Your task to perform on an android device: turn on bluetooth scan Image 0: 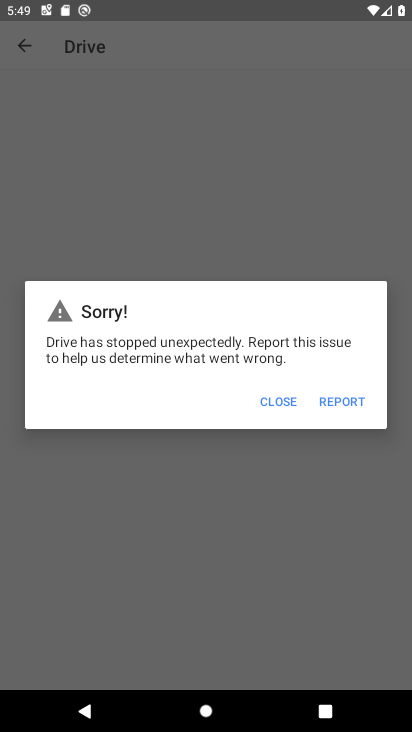
Step 0: press home button
Your task to perform on an android device: turn on bluetooth scan Image 1: 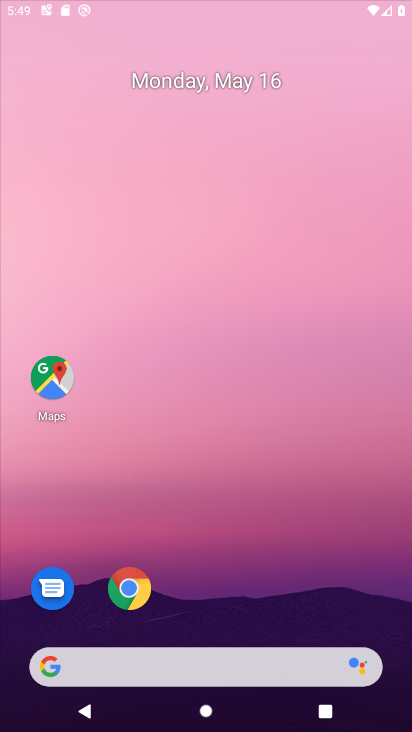
Step 1: drag from (277, 484) to (225, 35)
Your task to perform on an android device: turn on bluetooth scan Image 2: 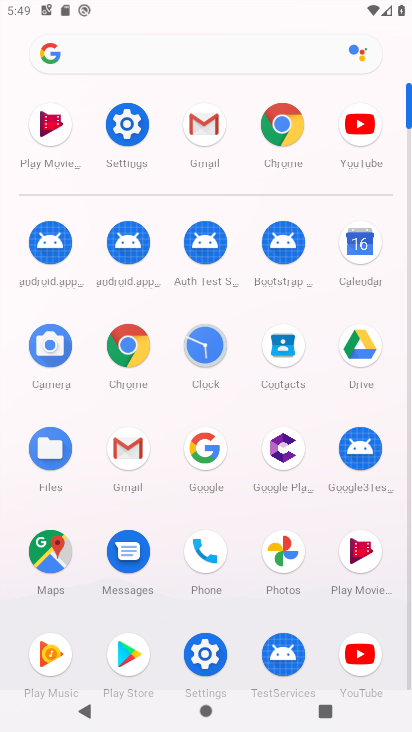
Step 2: click (133, 117)
Your task to perform on an android device: turn on bluetooth scan Image 3: 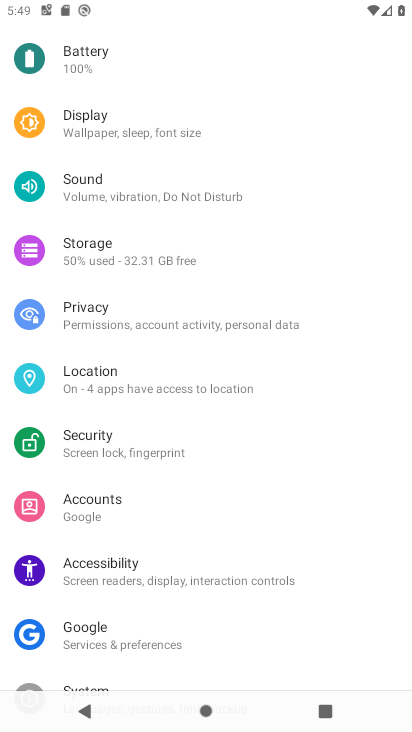
Step 3: click (181, 386)
Your task to perform on an android device: turn on bluetooth scan Image 4: 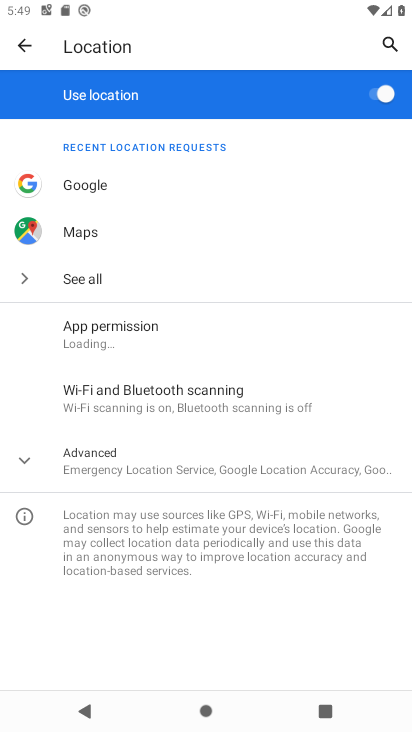
Step 4: click (188, 399)
Your task to perform on an android device: turn on bluetooth scan Image 5: 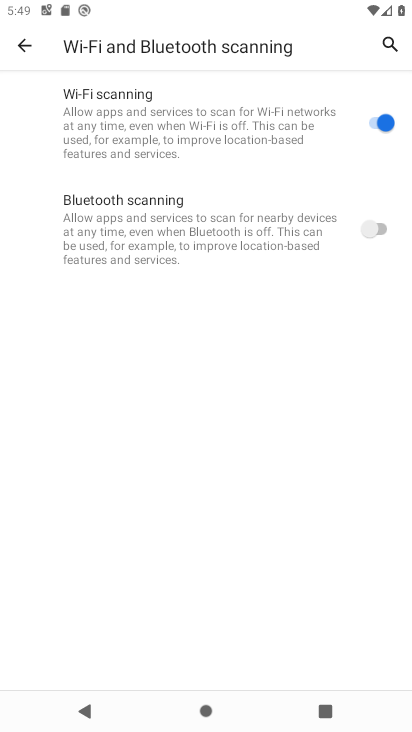
Step 5: click (362, 223)
Your task to perform on an android device: turn on bluetooth scan Image 6: 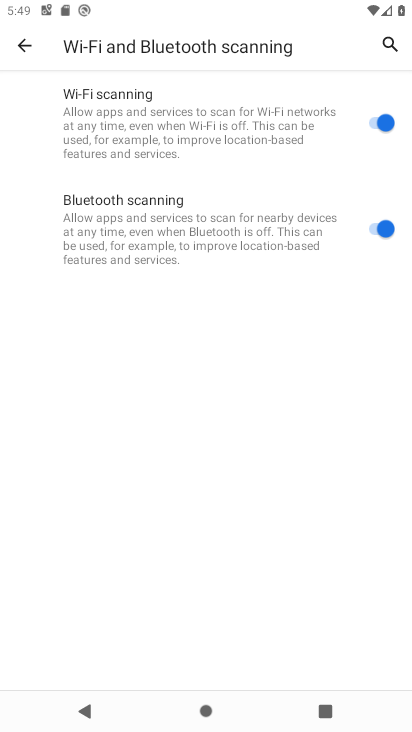
Step 6: task complete